Your task to perform on an android device: visit the assistant section in the google photos Image 0: 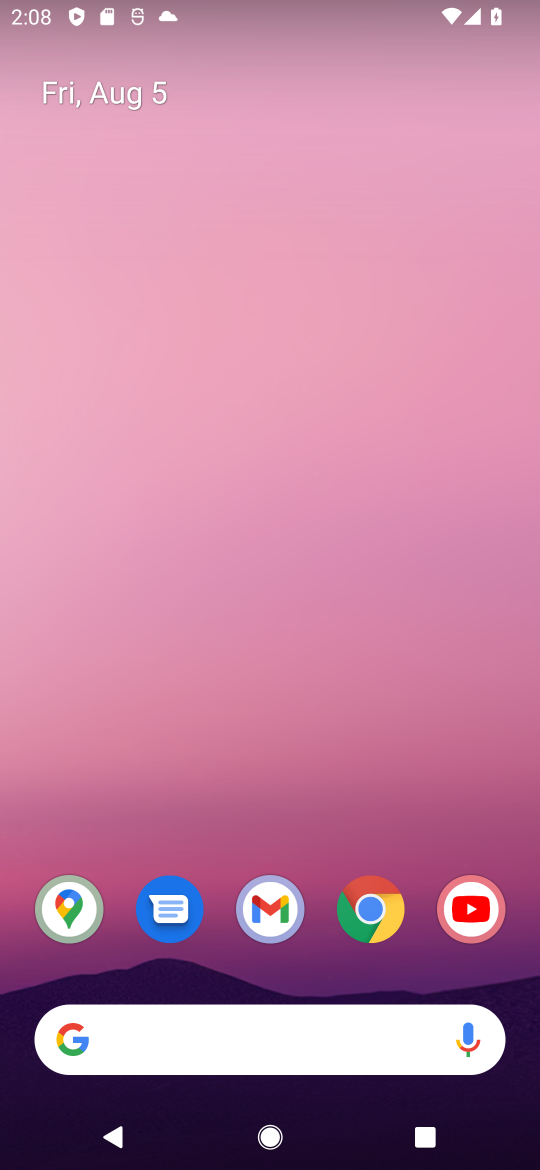
Step 0: click (358, 946)
Your task to perform on an android device: visit the assistant section in the google photos Image 1: 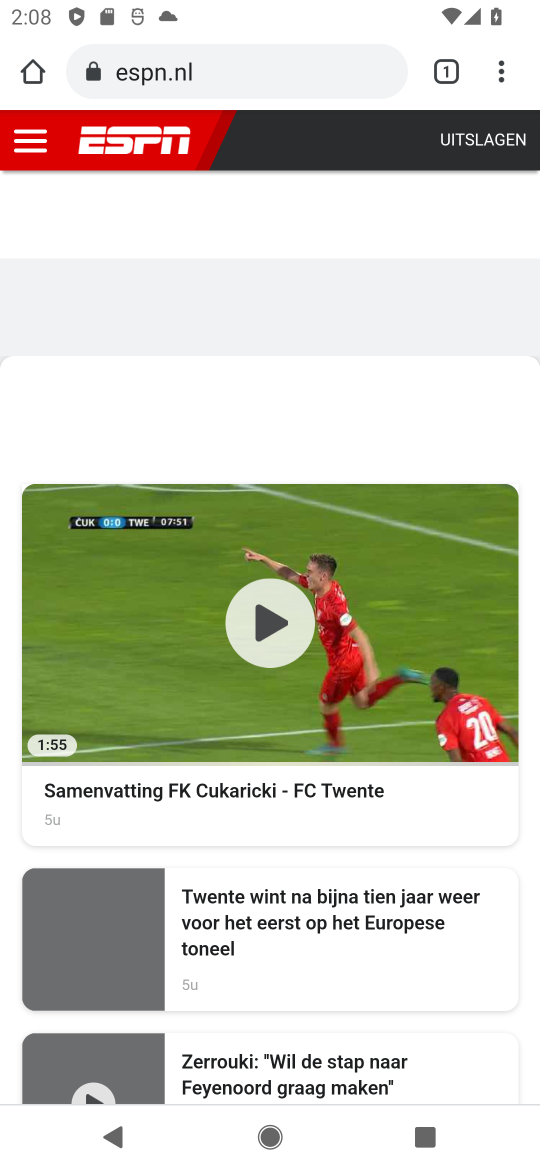
Step 1: click (344, 63)
Your task to perform on an android device: visit the assistant section in the google photos Image 2: 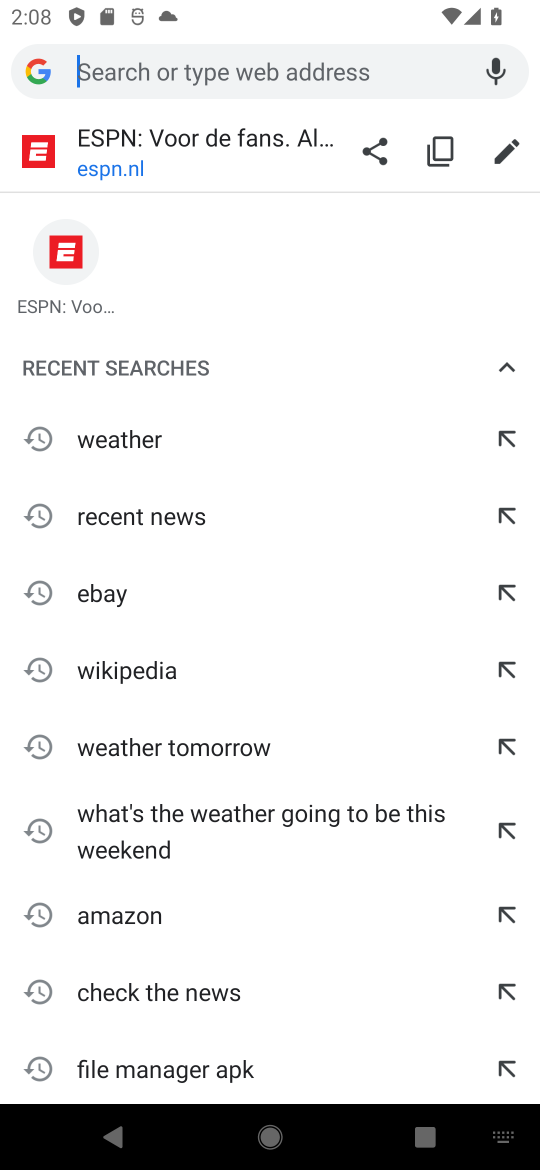
Step 2: type "google.com"
Your task to perform on an android device: visit the assistant section in the google photos Image 3: 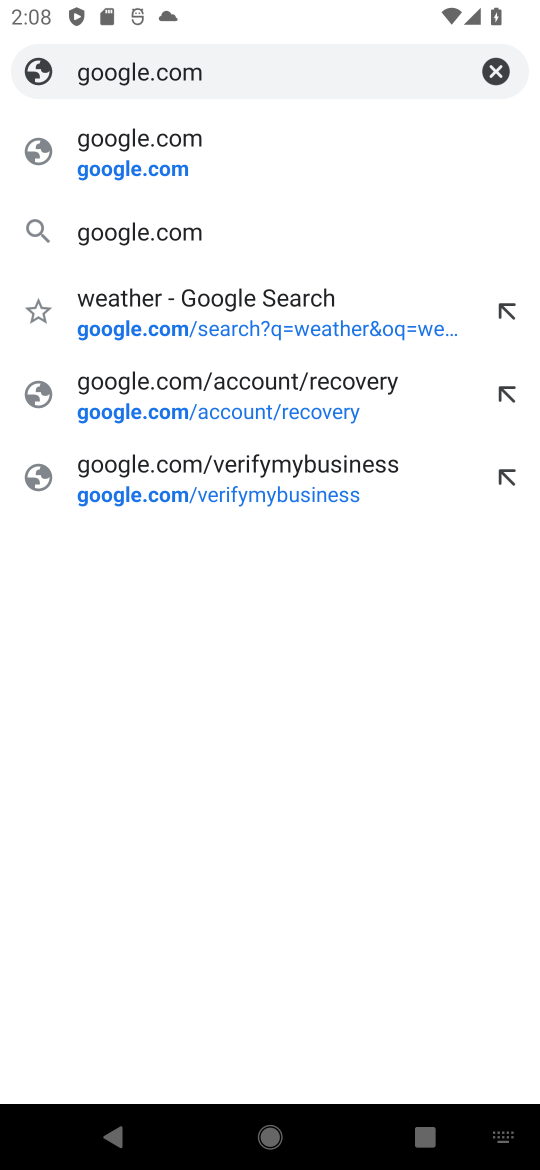
Step 3: click (307, 168)
Your task to perform on an android device: visit the assistant section in the google photos Image 4: 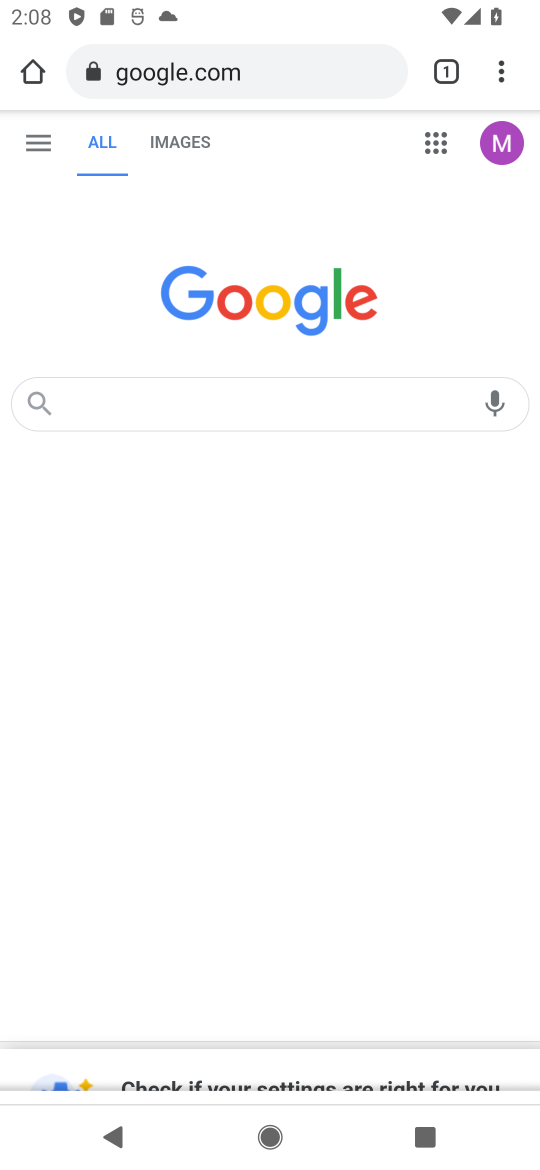
Step 4: task complete